Your task to perform on an android device: Open calendar and show me the first week of next month Image 0: 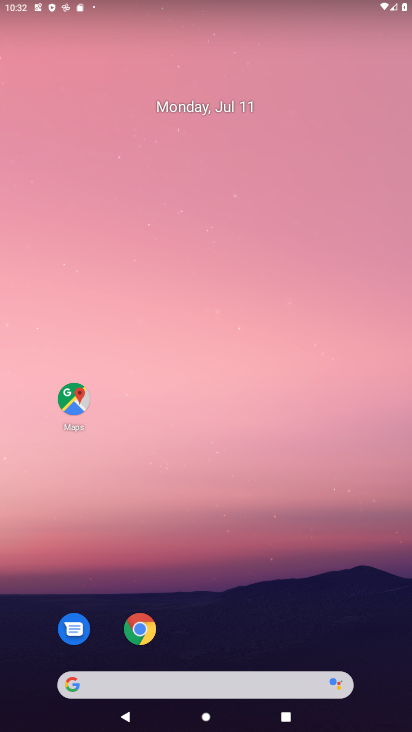
Step 0: drag from (247, 644) to (116, 40)
Your task to perform on an android device: Open calendar and show me the first week of next month Image 1: 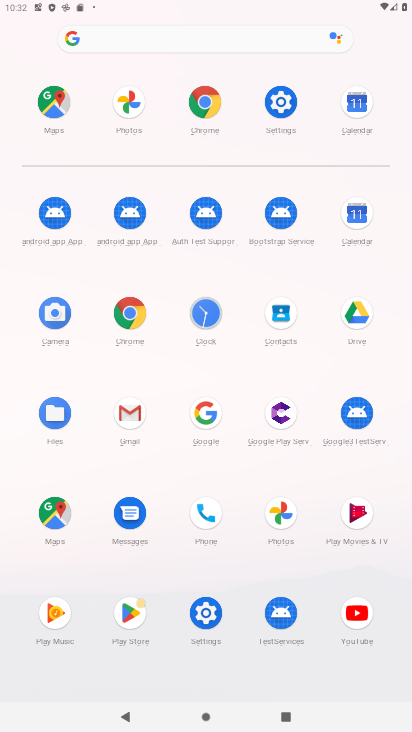
Step 1: click (341, 119)
Your task to perform on an android device: Open calendar and show me the first week of next month Image 2: 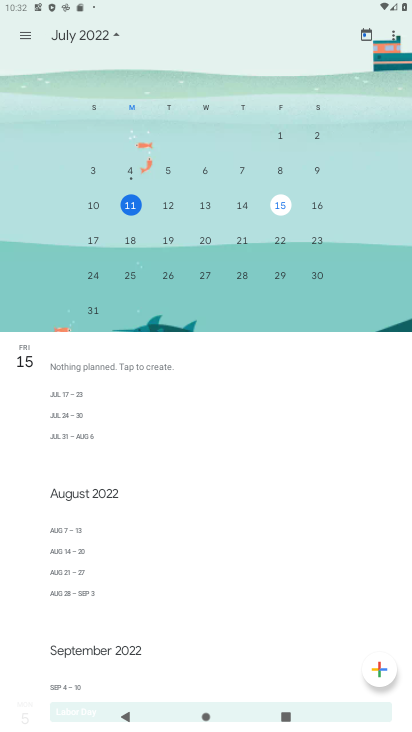
Step 2: drag from (363, 196) to (26, 199)
Your task to perform on an android device: Open calendar and show me the first week of next month Image 3: 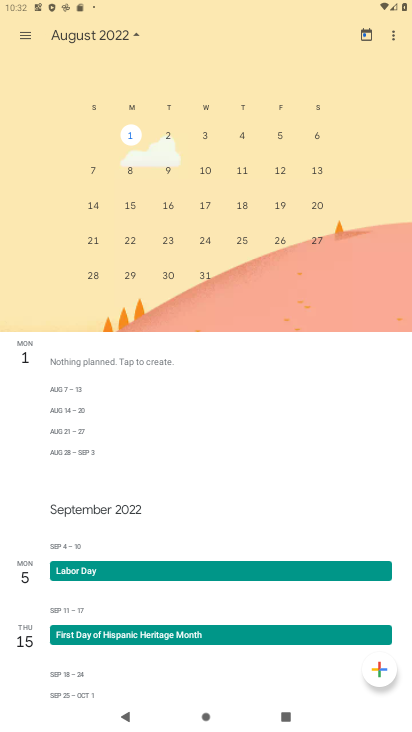
Step 3: click (183, 172)
Your task to perform on an android device: Open calendar and show me the first week of next month Image 4: 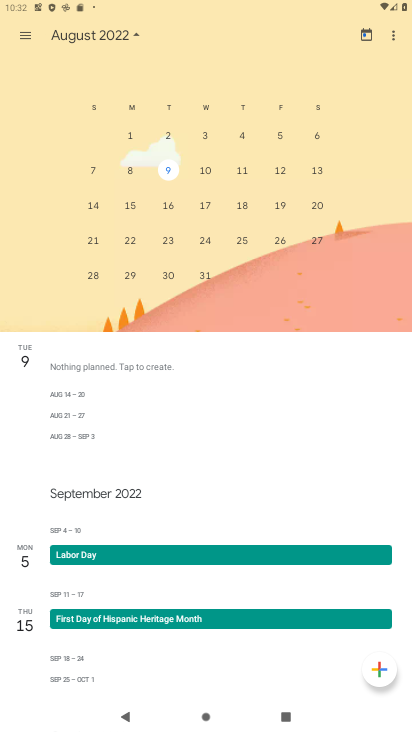
Step 4: task complete